Your task to perform on an android device: allow cookies in the chrome app Image 0: 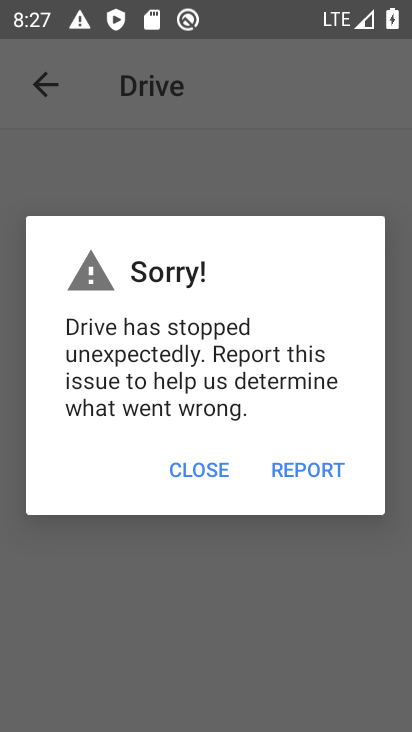
Step 0: press back button
Your task to perform on an android device: allow cookies in the chrome app Image 1: 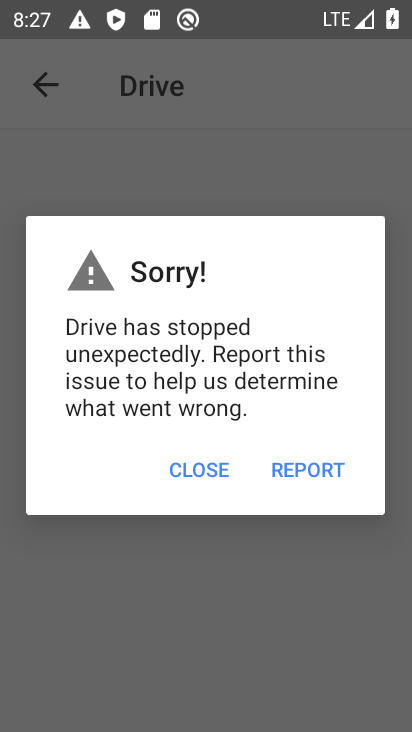
Step 1: press home button
Your task to perform on an android device: allow cookies in the chrome app Image 2: 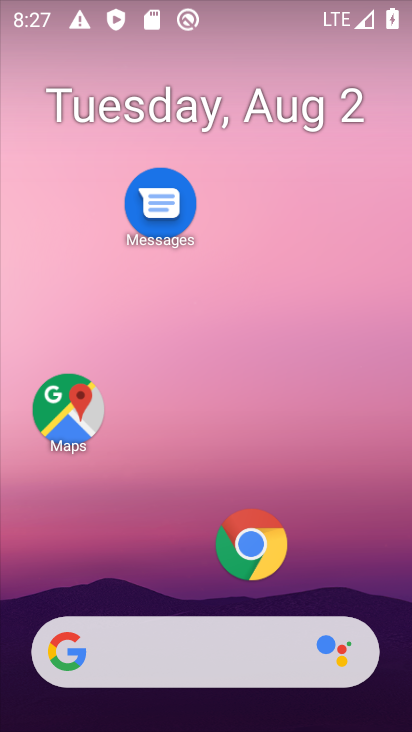
Step 2: click (263, 546)
Your task to perform on an android device: allow cookies in the chrome app Image 3: 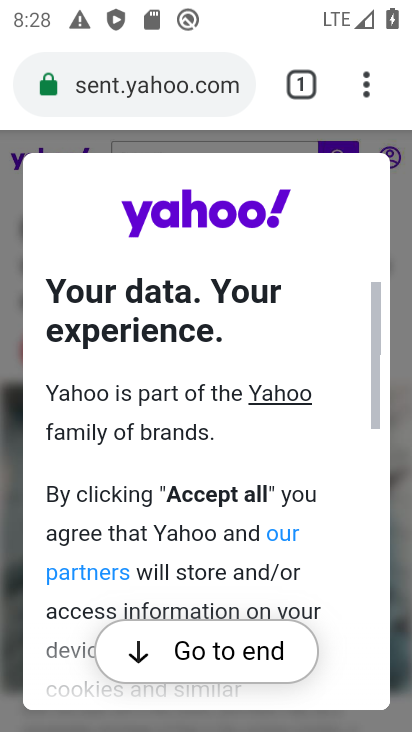
Step 3: drag from (363, 90) to (103, 586)
Your task to perform on an android device: allow cookies in the chrome app Image 4: 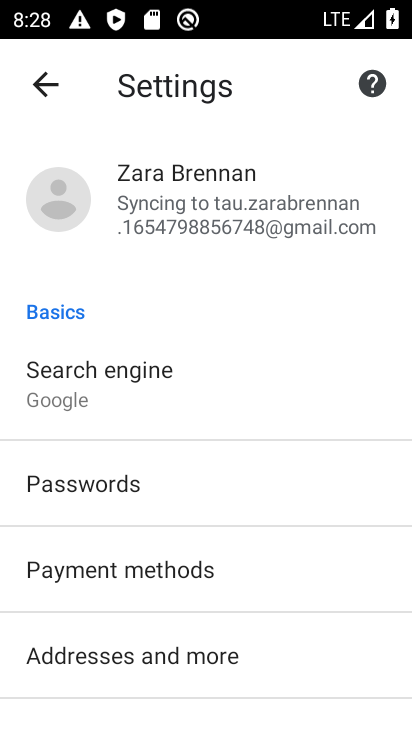
Step 4: drag from (163, 593) to (159, 331)
Your task to perform on an android device: allow cookies in the chrome app Image 5: 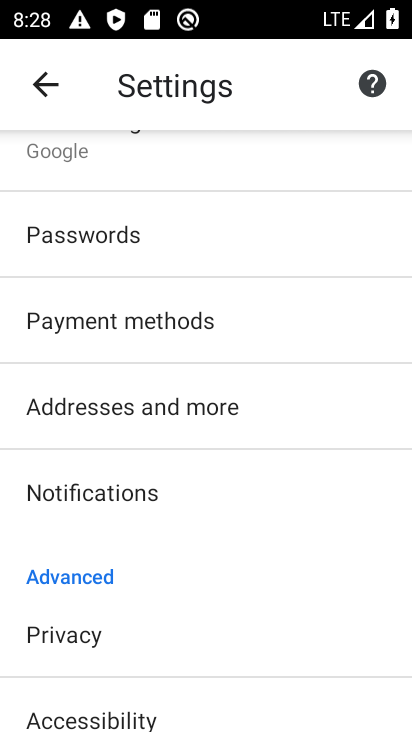
Step 5: drag from (174, 258) to (194, 526)
Your task to perform on an android device: allow cookies in the chrome app Image 6: 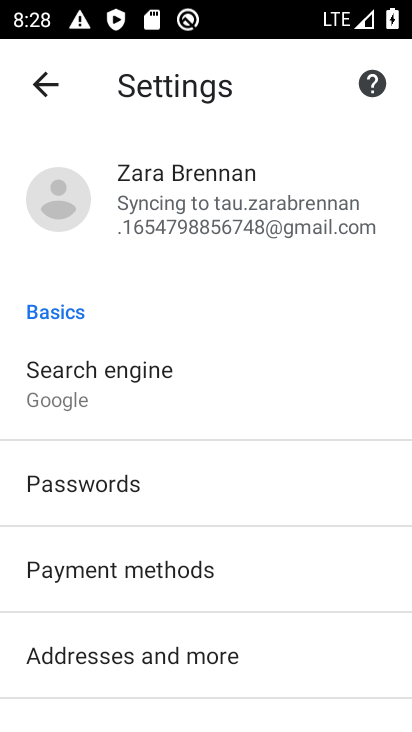
Step 6: drag from (177, 605) to (193, 269)
Your task to perform on an android device: allow cookies in the chrome app Image 7: 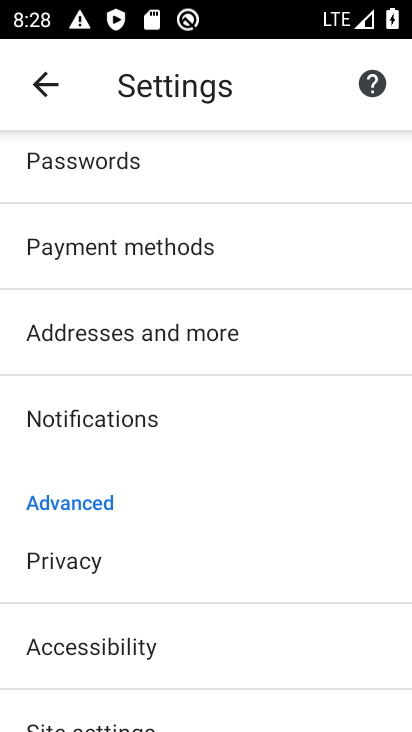
Step 7: drag from (152, 589) to (146, 221)
Your task to perform on an android device: allow cookies in the chrome app Image 8: 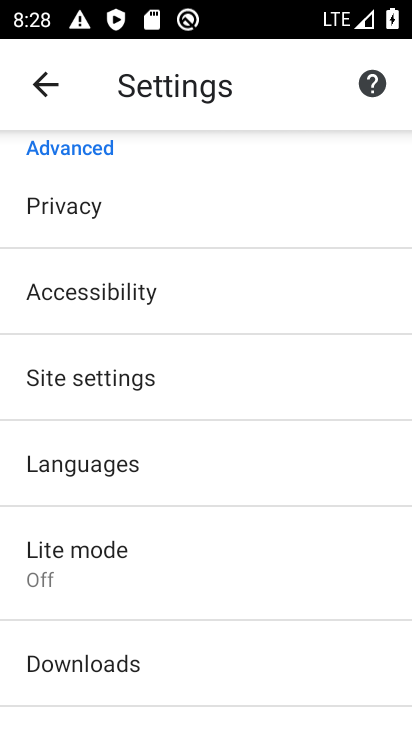
Step 8: click (129, 386)
Your task to perform on an android device: allow cookies in the chrome app Image 9: 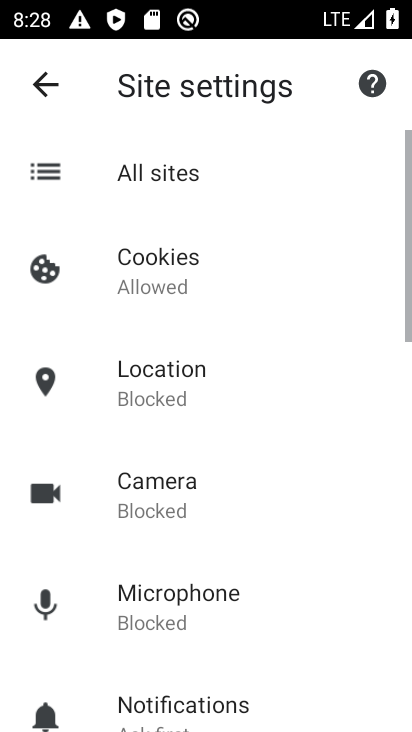
Step 9: click (153, 257)
Your task to perform on an android device: allow cookies in the chrome app Image 10: 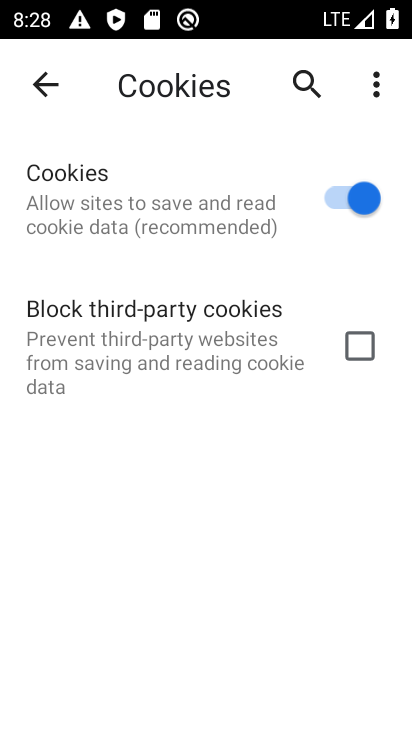
Step 10: task complete